Your task to perform on an android device: toggle improve location accuracy Image 0: 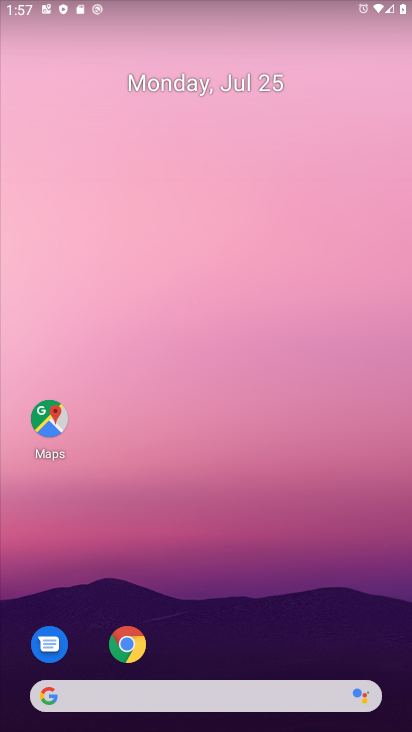
Step 0: drag from (353, 617) to (128, 68)
Your task to perform on an android device: toggle improve location accuracy Image 1: 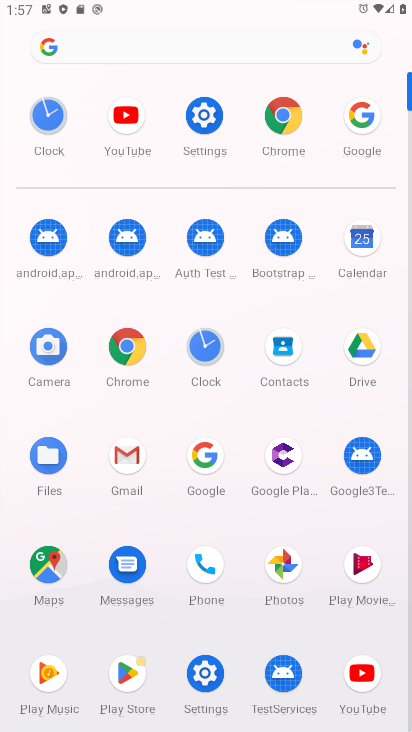
Step 1: click (201, 676)
Your task to perform on an android device: toggle improve location accuracy Image 2: 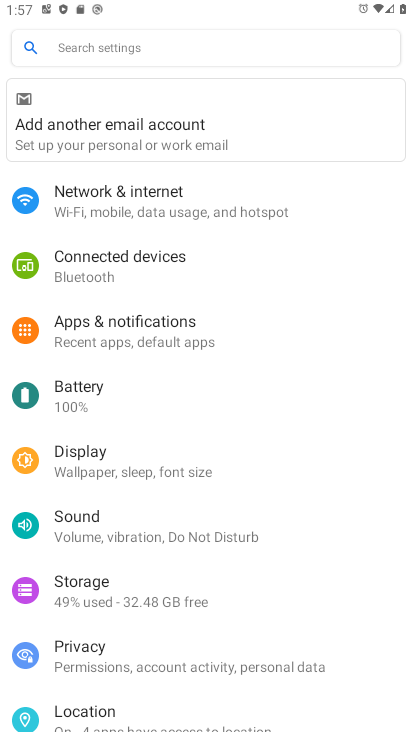
Step 2: click (110, 712)
Your task to perform on an android device: toggle improve location accuracy Image 3: 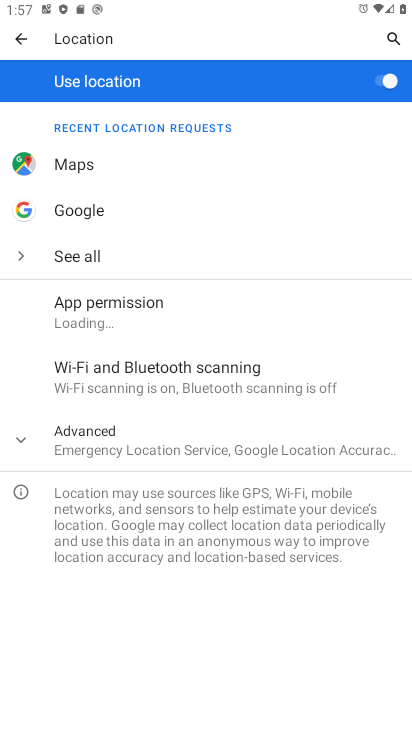
Step 3: click (127, 434)
Your task to perform on an android device: toggle improve location accuracy Image 4: 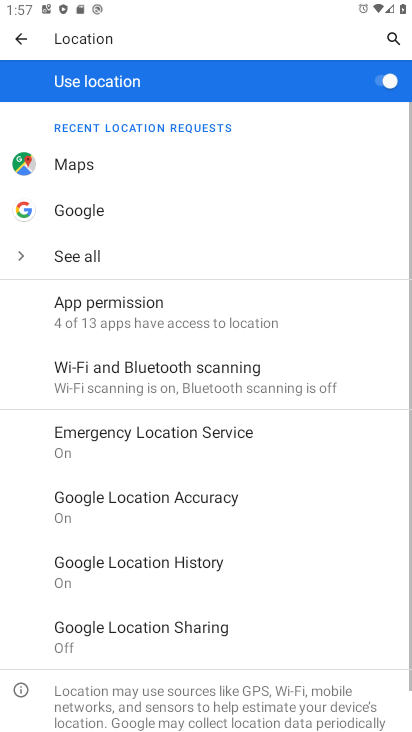
Step 4: click (131, 489)
Your task to perform on an android device: toggle improve location accuracy Image 5: 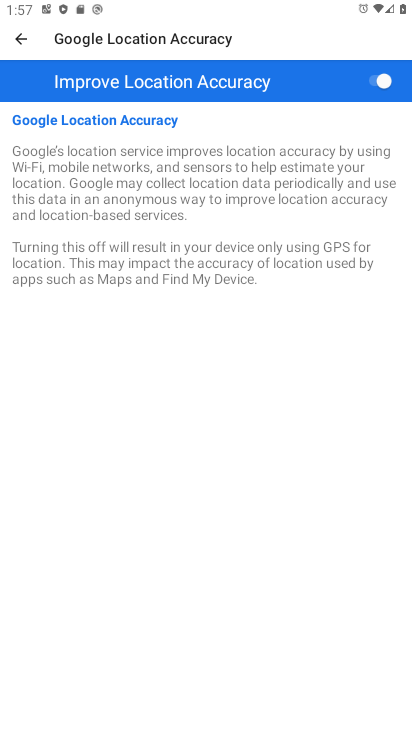
Step 5: click (368, 92)
Your task to perform on an android device: toggle improve location accuracy Image 6: 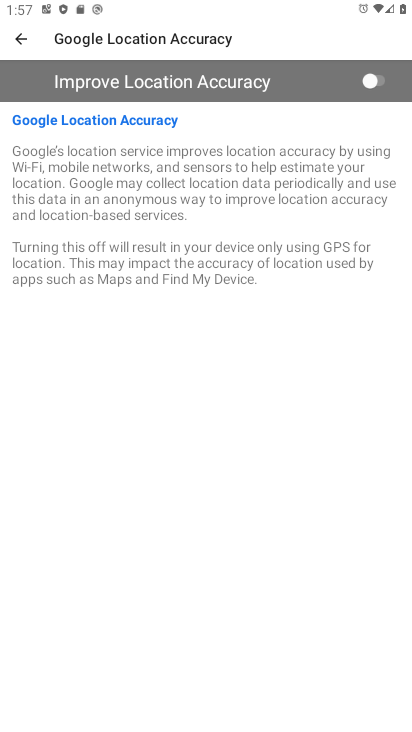
Step 6: task complete